Your task to perform on an android device: Turn off the flashlight Image 0: 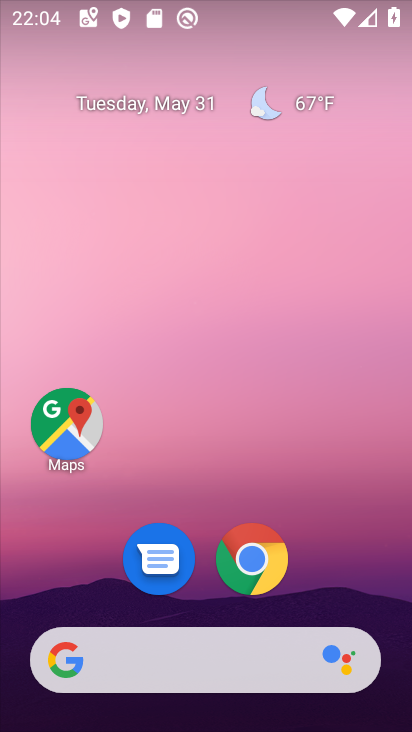
Step 0: drag from (308, 582) to (290, 100)
Your task to perform on an android device: Turn off the flashlight Image 1: 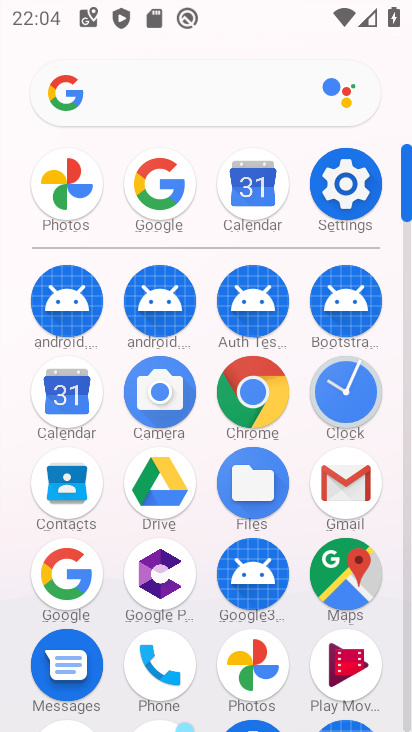
Step 1: click (342, 185)
Your task to perform on an android device: Turn off the flashlight Image 2: 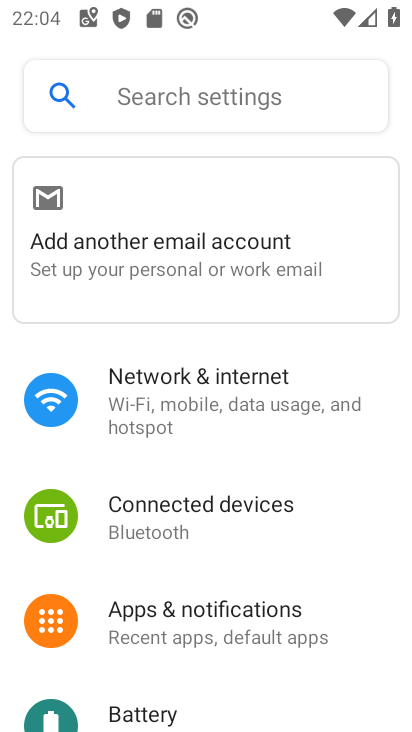
Step 2: click (190, 102)
Your task to perform on an android device: Turn off the flashlight Image 3: 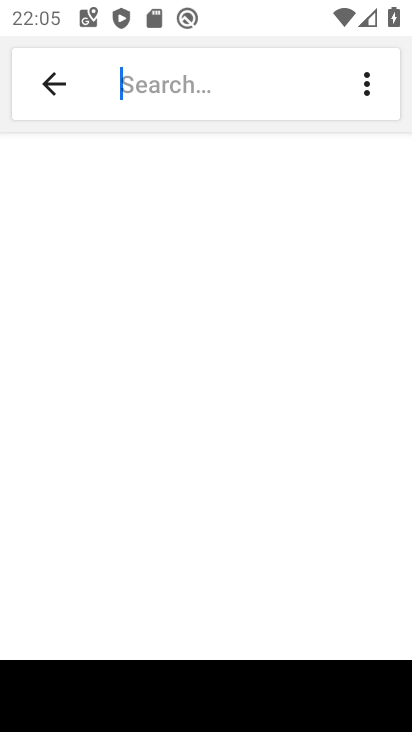
Step 3: type "flash"
Your task to perform on an android device: Turn off the flashlight Image 4: 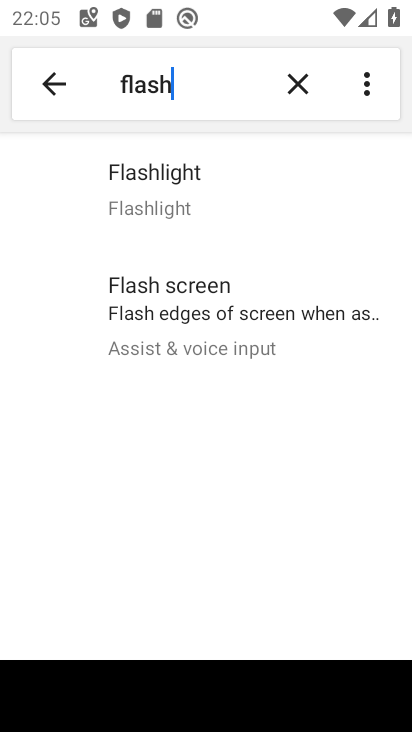
Step 4: task complete